Your task to perform on an android device: change the clock style Image 0: 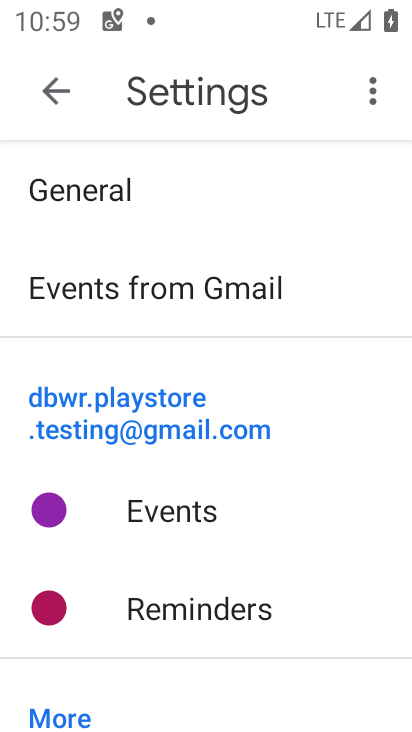
Step 0: press home button
Your task to perform on an android device: change the clock style Image 1: 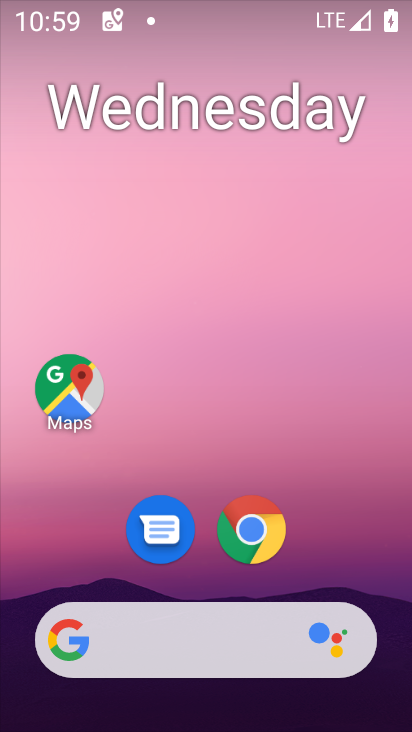
Step 1: drag from (389, 625) to (343, 102)
Your task to perform on an android device: change the clock style Image 2: 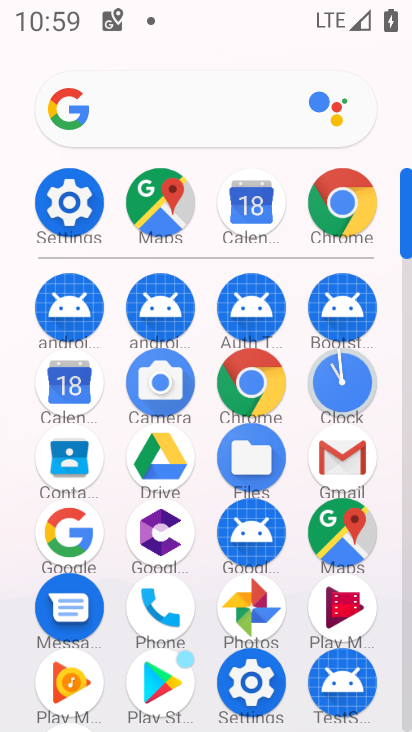
Step 2: click (406, 674)
Your task to perform on an android device: change the clock style Image 3: 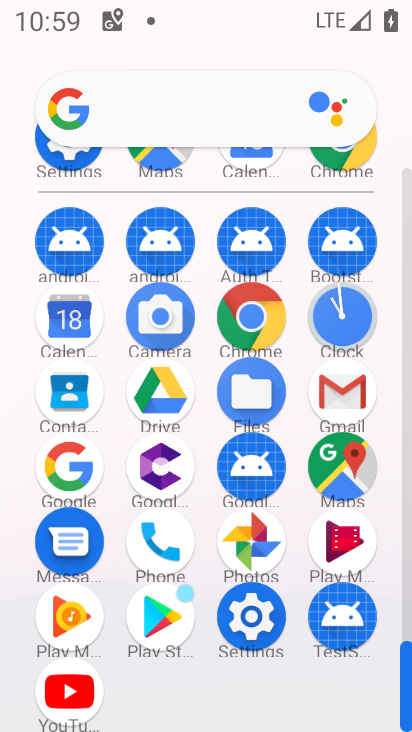
Step 3: click (343, 314)
Your task to perform on an android device: change the clock style Image 4: 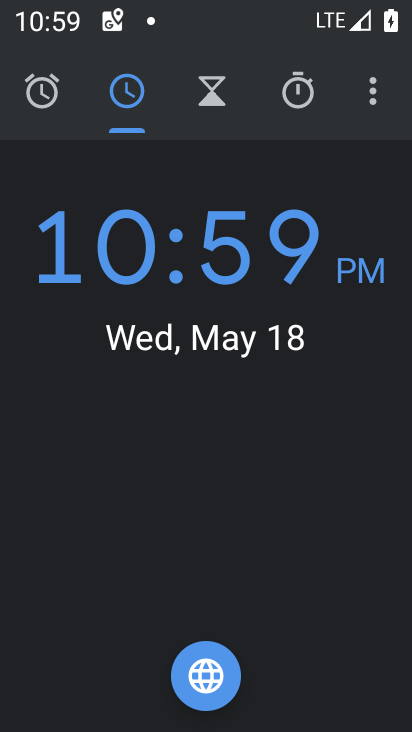
Step 4: click (366, 94)
Your task to perform on an android device: change the clock style Image 5: 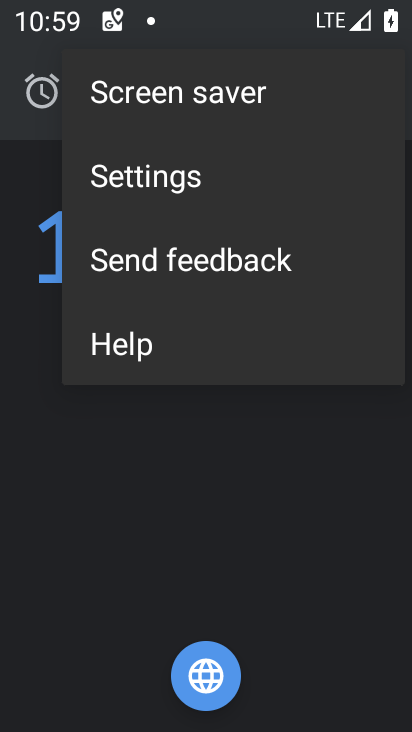
Step 5: click (131, 194)
Your task to perform on an android device: change the clock style Image 6: 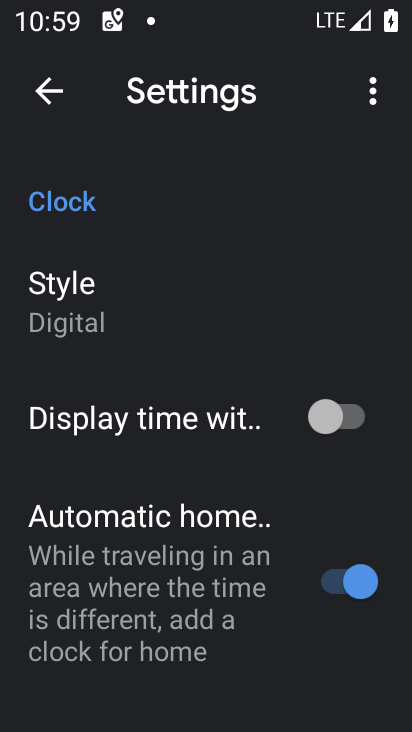
Step 6: click (70, 333)
Your task to perform on an android device: change the clock style Image 7: 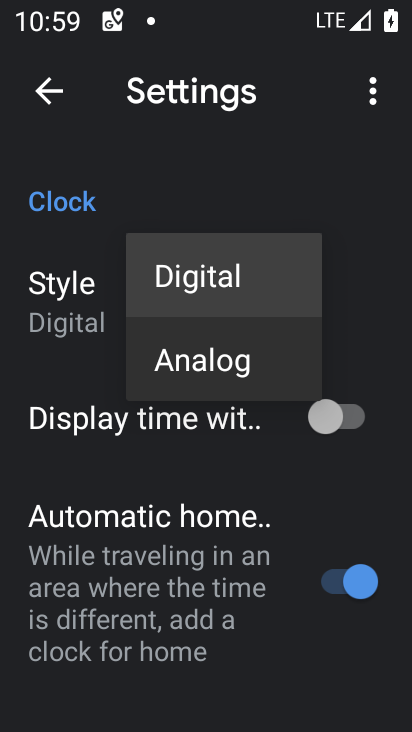
Step 7: click (201, 359)
Your task to perform on an android device: change the clock style Image 8: 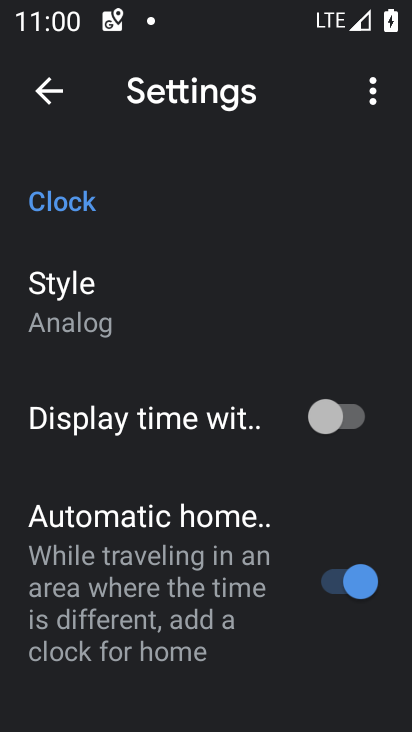
Step 8: task complete